Your task to perform on an android device: find which apps use the phone's location Image 0: 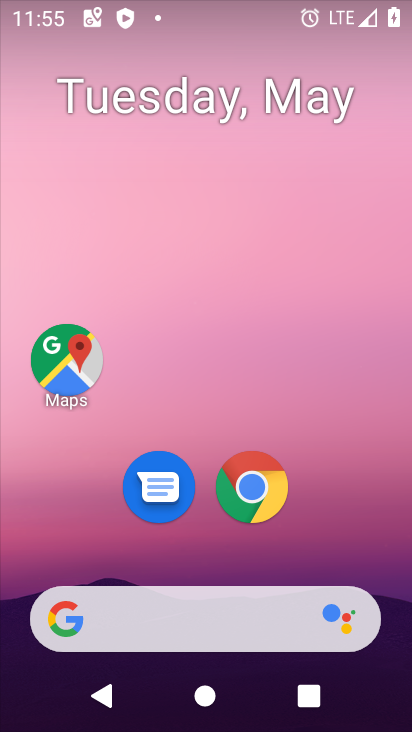
Step 0: drag from (212, 521) to (269, 91)
Your task to perform on an android device: find which apps use the phone's location Image 1: 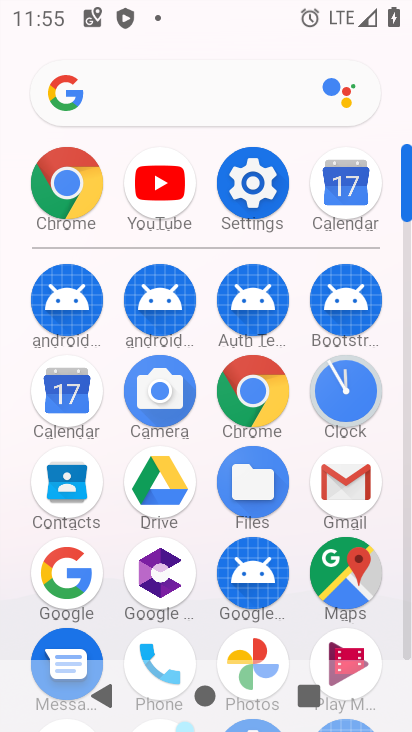
Step 1: click (246, 200)
Your task to perform on an android device: find which apps use the phone's location Image 2: 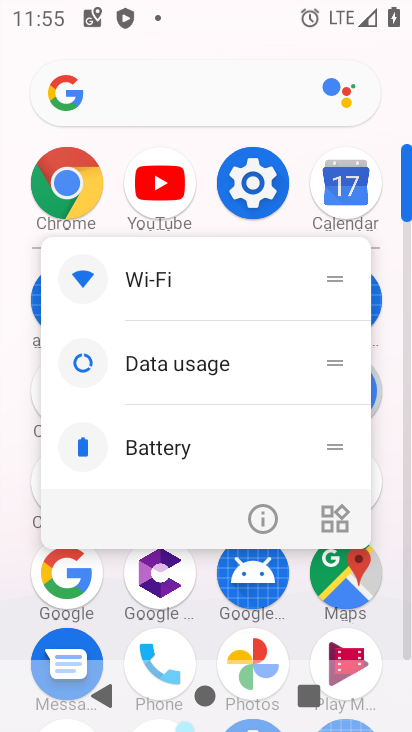
Step 2: click (273, 499)
Your task to perform on an android device: find which apps use the phone's location Image 3: 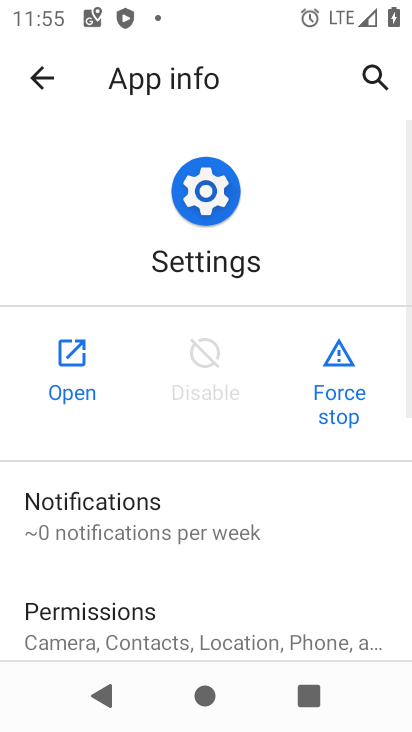
Step 3: click (78, 348)
Your task to perform on an android device: find which apps use the phone's location Image 4: 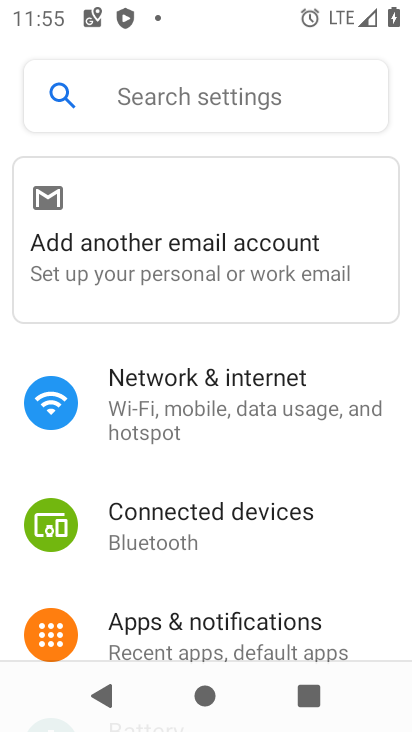
Step 4: click (199, 616)
Your task to perform on an android device: find which apps use the phone's location Image 5: 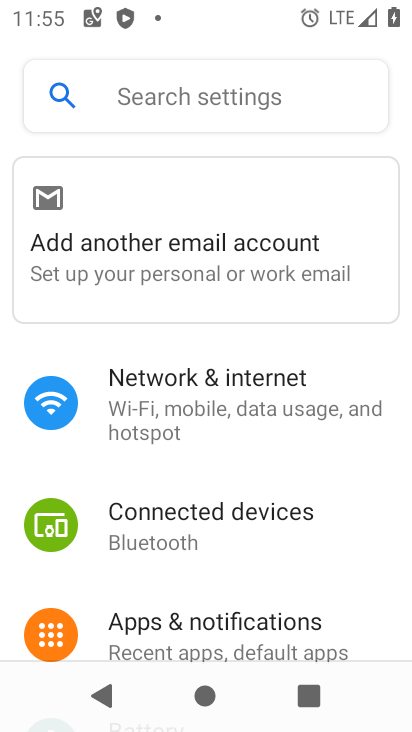
Step 5: click (197, 615)
Your task to perform on an android device: find which apps use the phone's location Image 6: 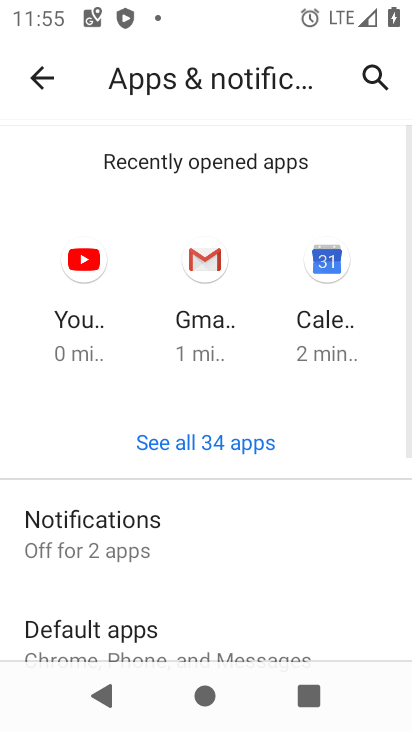
Step 6: drag from (139, 542) to (251, 101)
Your task to perform on an android device: find which apps use the phone's location Image 7: 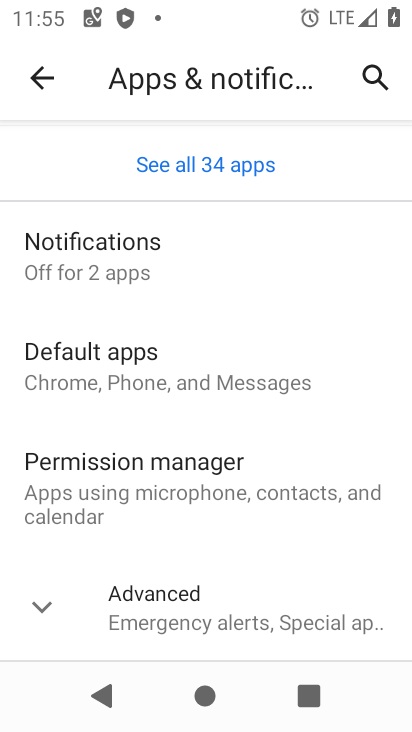
Step 7: click (42, 63)
Your task to perform on an android device: find which apps use the phone's location Image 8: 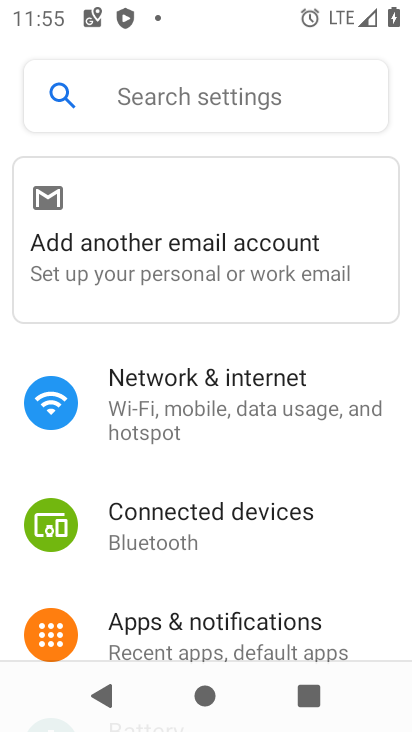
Step 8: drag from (225, 561) to (264, 116)
Your task to perform on an android device: find which apps use the phone's location Image 9: 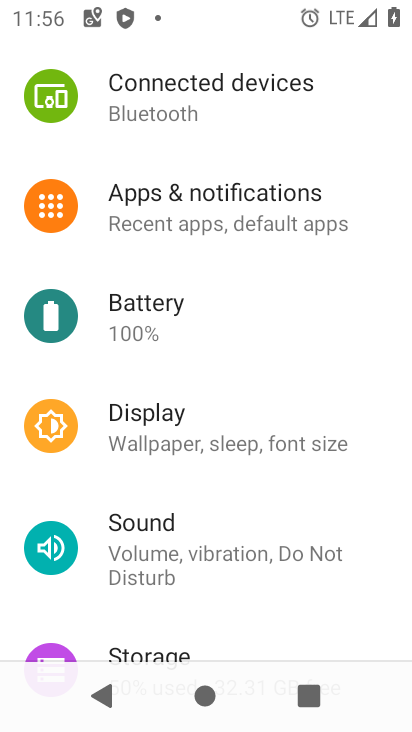
Step 9: drag from (229, 612) to (275, 77)
Your task to perform on an android device: find which apps use the phone's location Image 10: 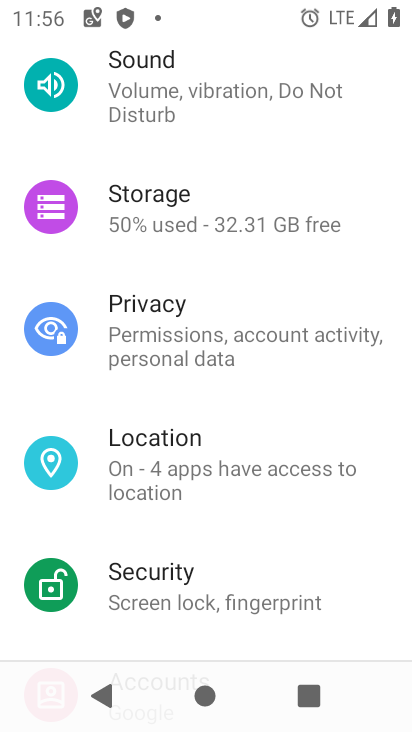
Step 10: click (193, 466)
Your task to perform on an android device: find which apps use the phone's location Image 11: 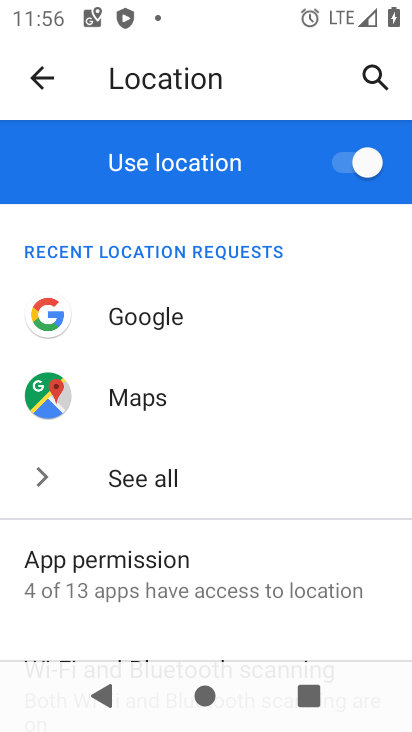
Step 11: drag from (237, 595) to (235, 262)
Your task to perform on an android device: find which apps use the phone's location Image 12: 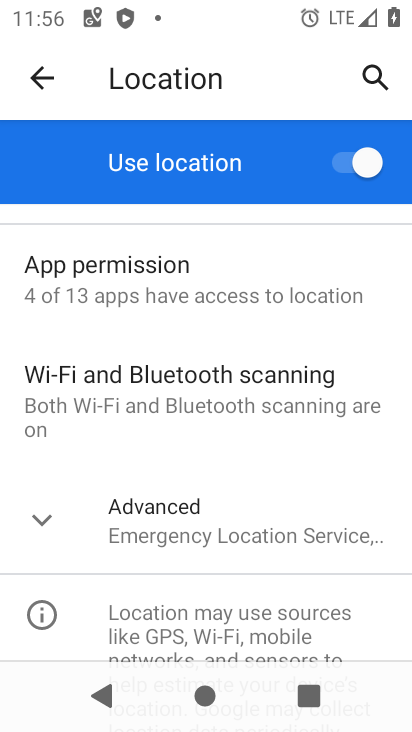
Step 12: click (177, 515)
Your task to perform on an android device: find which apps use the phone's location Image 13: 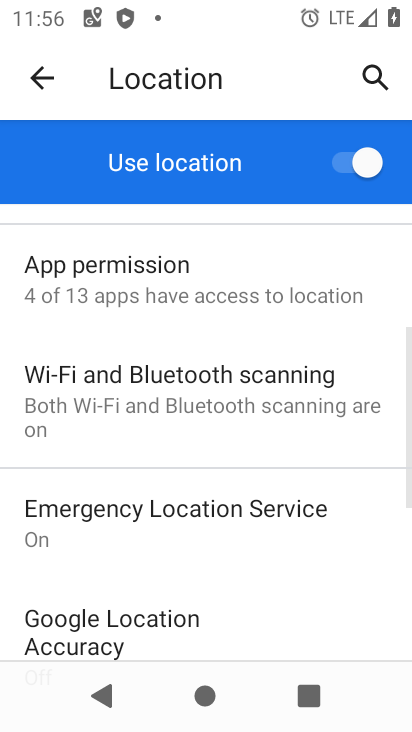
Step 13: click (137, 306)
Your task to perform on an android device: find which apps use the phone's location Image 14: 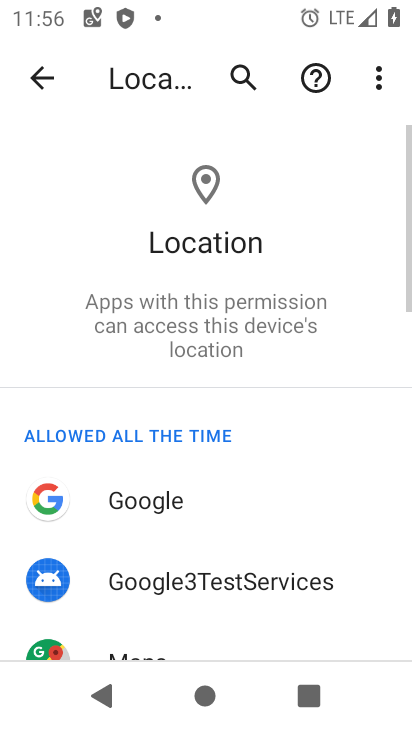
Step 14: task complete